Your task to perform on an android device: Open Google Image 0: 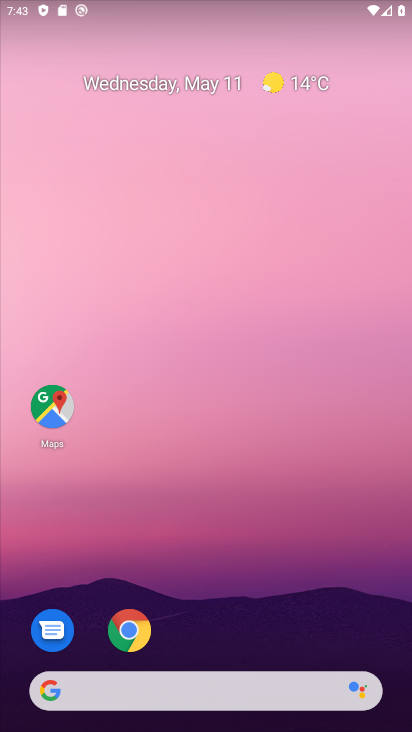
Step 0: drag from (338, 603) to (42, 126)
Your task to perform on an android device: Open Google Image 1: 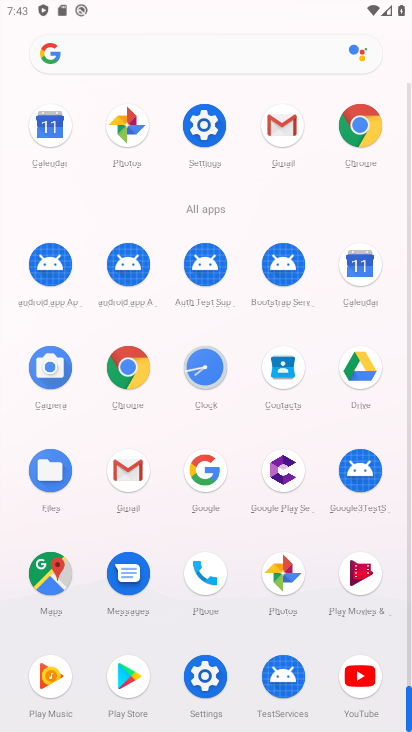
Step 1: click (204, 470)
Your task to perform on an android device: Open Google Image 2: 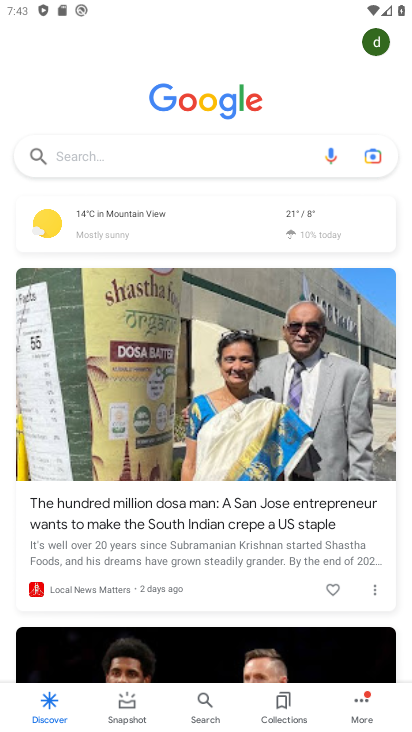
Step 2: task complete